Your task to perform on an android device: Go to Yahoo.com Image 0: 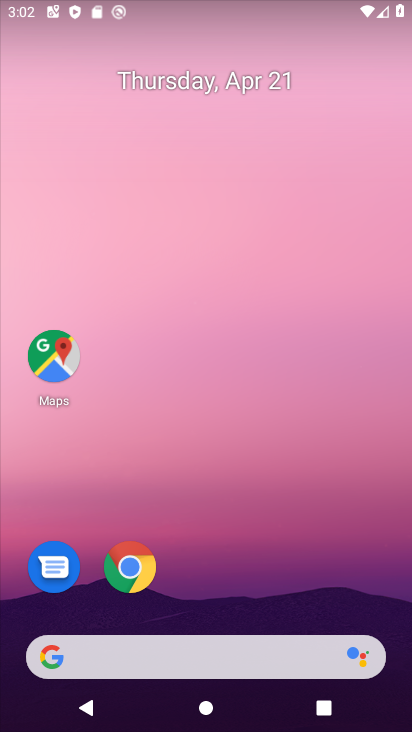
Step 0: click (130, 571)
Your task to perform on an android device: Go to Yahoo.com Image 1: 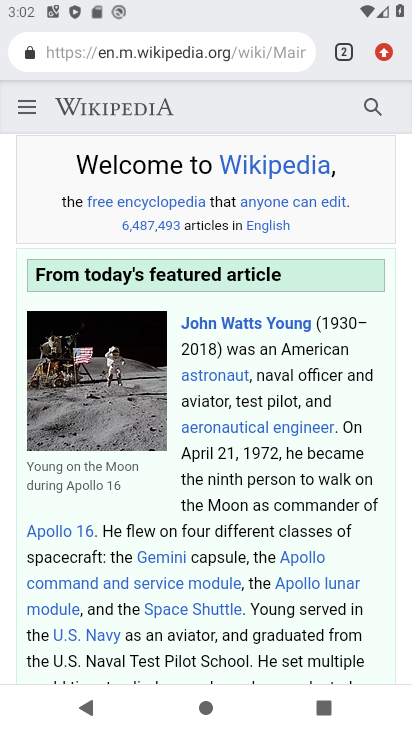
Step 1: click (339, 42)
Your task to perform on an android device: Go to Yahoo.com Image 2: 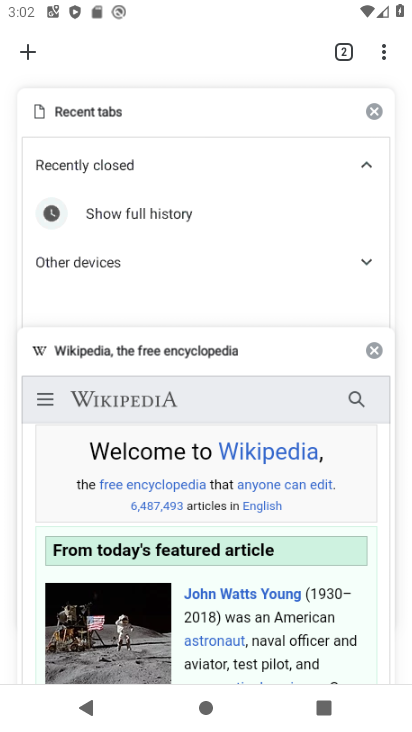
Step 2: click (30, 55)
Your task to perform on an android device: Go to Yahoo.com Image 3: 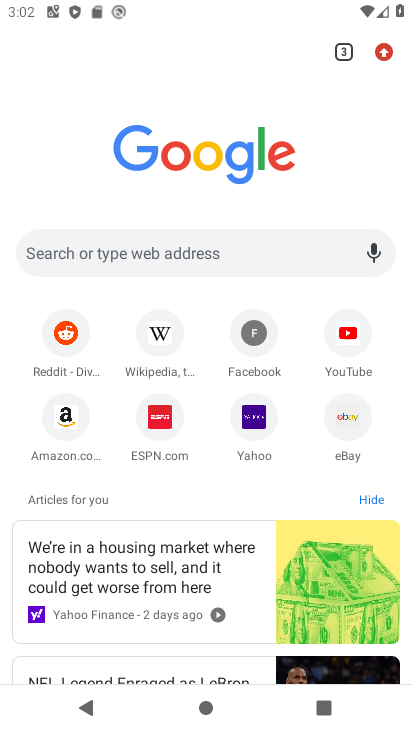
Step 3: click (257, 416)
Your task to perform on an android device: Go to Yahoo.com Image 4: 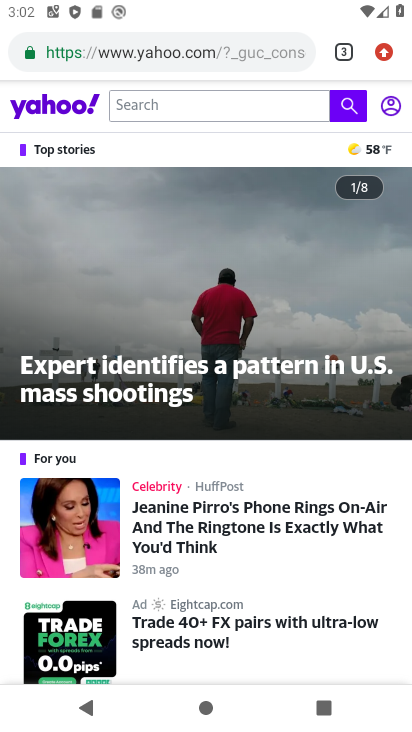
Step 4: task complete